Your task to perform on an android device: Search for Italian restaurants on Maps Image 0: 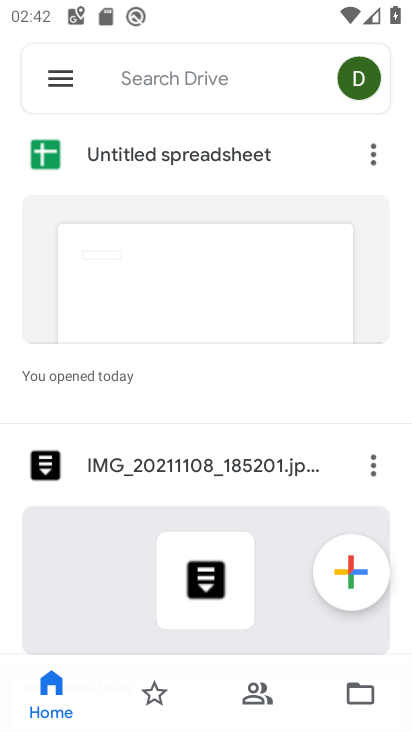
Step 0: press home button
Your task to perform on an android device: Search for Italian restaurants on Maps Image 1: 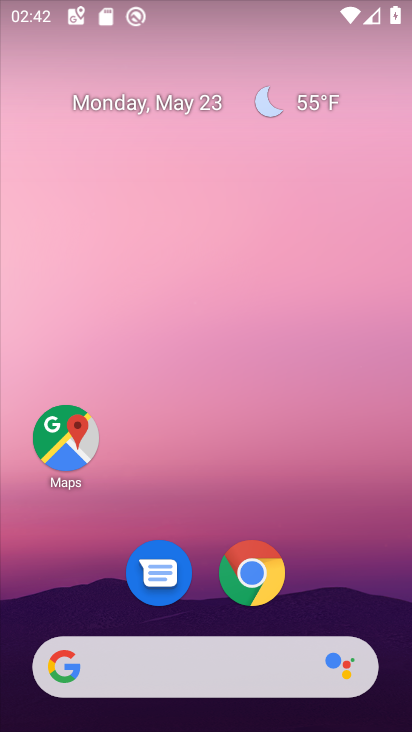
Step 1: drag from (302, 523) to (403, 21)
Your task to perform on an android device: Search for Italian restaurants on Maps Image 2: 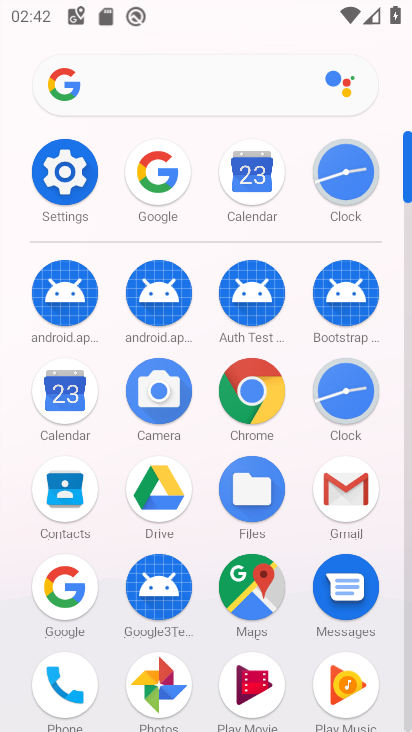
Step 2: drag from (211, 655) to (250, 179)
Your task to perform on an android device: Search for Italian restaurants on Maps Image 3: 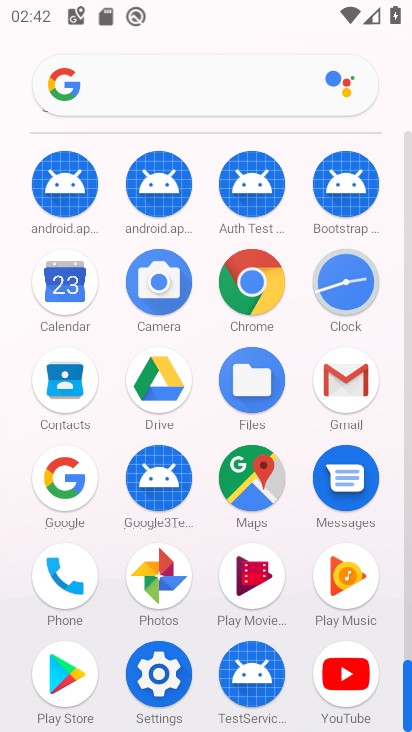
Step 3: drag from (200, 629) to (242, 182)
Your task to perform on an android device: Search for Italian restaurants on Maps Image 4: 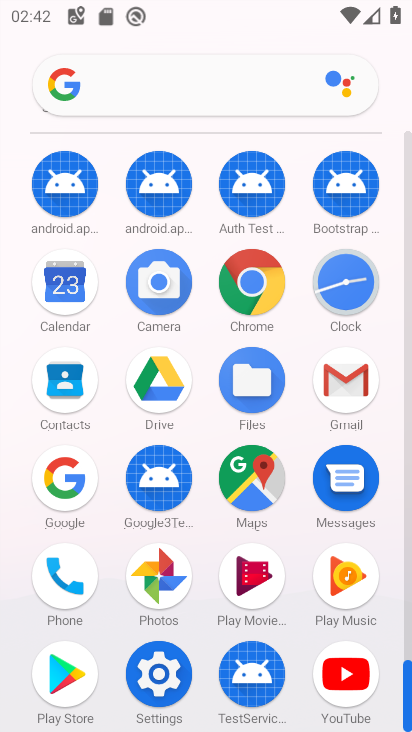
Step 4: drag from (201, 685) to (196, 272)
Your task to perform on an android device: Search for Italian restaurants on Maps Image 5: 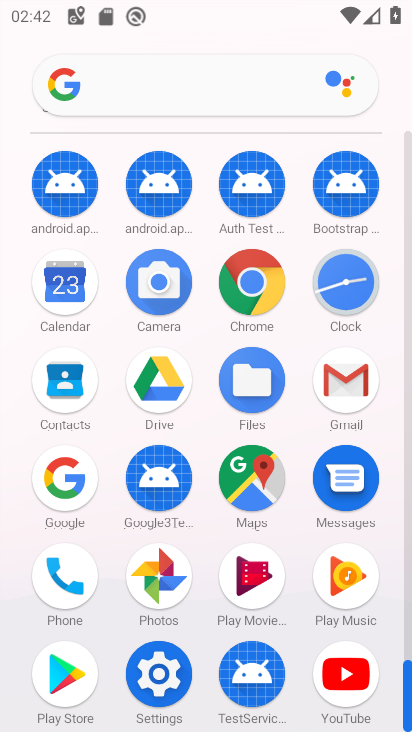
Step 5: drag from (364, 320) to (346, 685)
Your task to perform on an android device: Search for Italian restaurants on Maps Image 6: 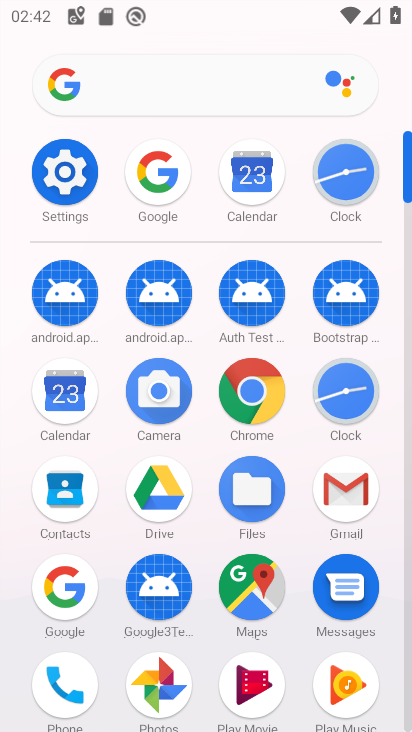
Step 6: click (252, 601)
Your task to perform on an android device: Search for Italian restaurants on Maps Image 7: 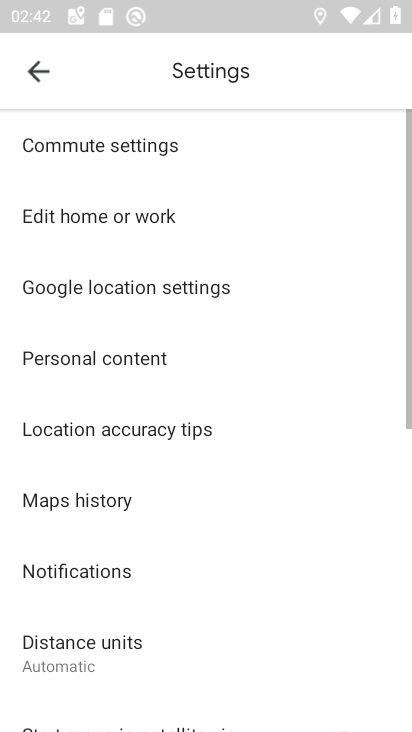
Step 7: press back button
Your task to perform on an android device: Search for Italian restaurants on Maps Image 8: 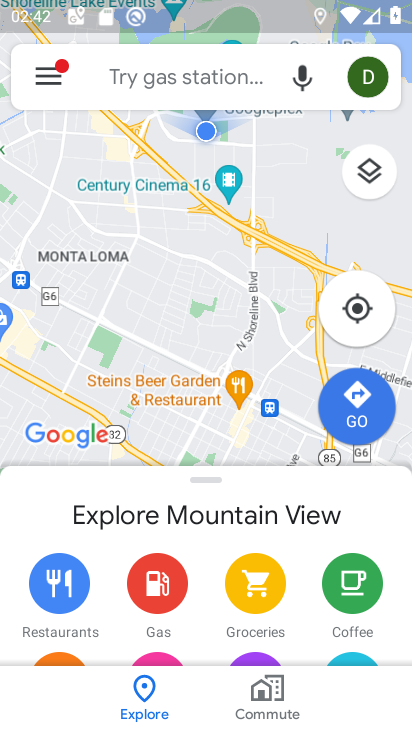
Step 8: click (195, 64)
Your task to perform on an android device: Search for Italian restaurants on Maps Image 9: 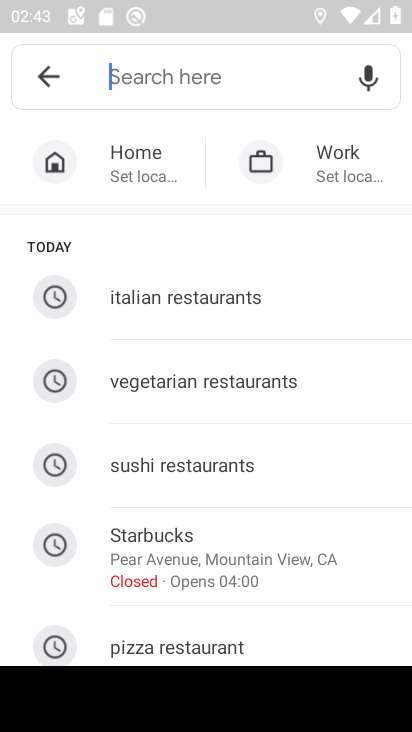
Step 9: click (157, 296)
Your task to perform on an android device: Search for Italian restaurants on Maps Image 10: 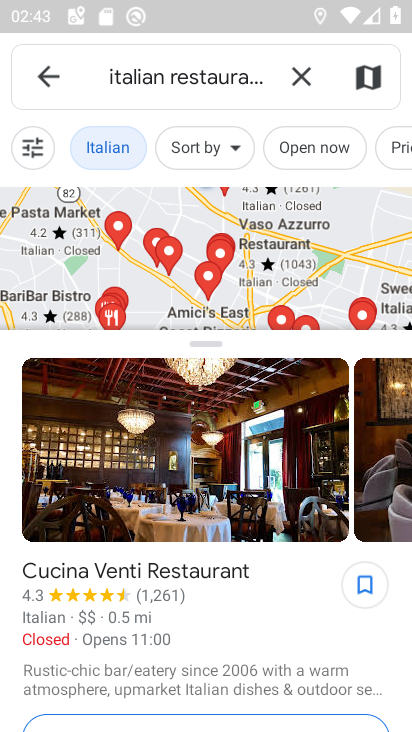
Step 10: task complete